Your task to perform on an android device: Add usb-c to usb-b to the cart on bestbuy.com, then select checkout. Image 0: 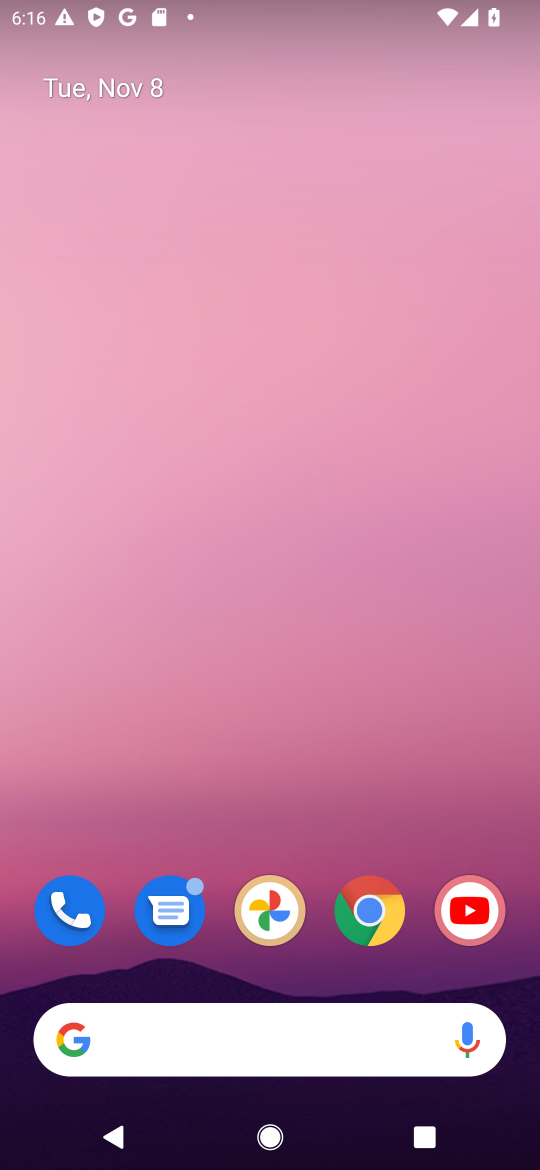
Step 0: click (376, 902)
Your task to perform on an android device: Add usb-c to usb-b to the cart on bestbuy.com, then select checkout. Image 1: 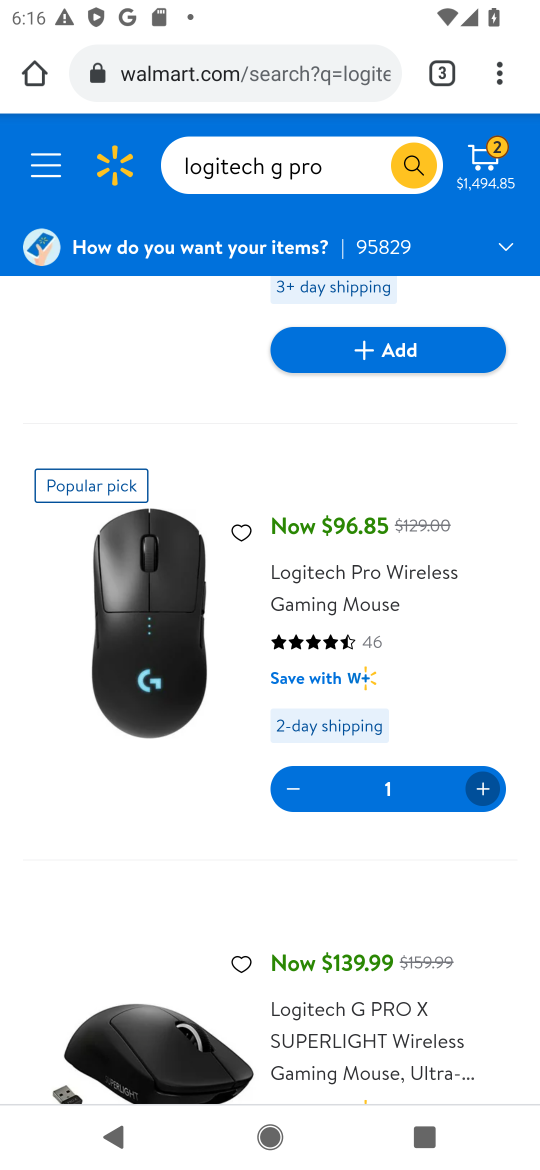
Step 1: click (450, 79)
Your task to perform on an android device: Add usb-c to usb-b to the cart on bestbuy.com, then select checkout. Image 2: 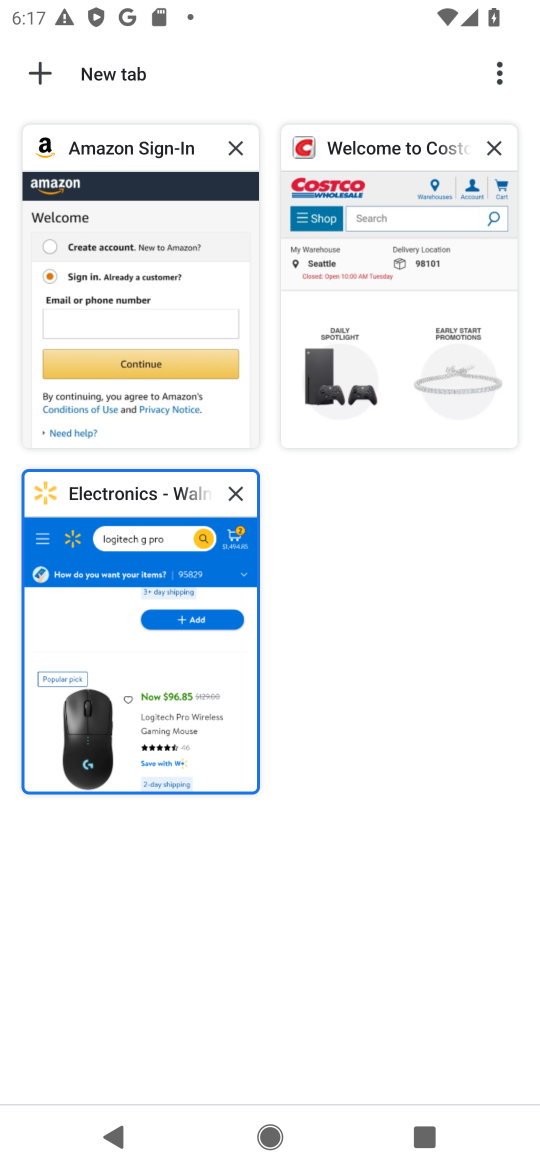
Step 2: click (40, 71)
Your task to perform on an android device: Add usb-c to usb-b to the cart on bestbuy.com, then select checkout. Image 3: 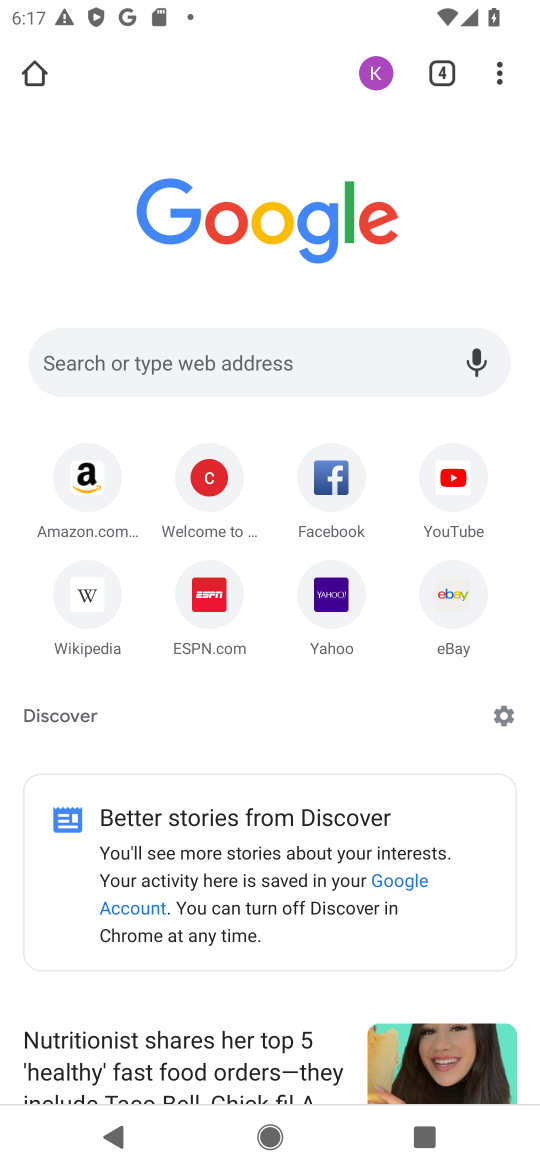
Step 3: click (253, 359)
Your task to perform on an android device: Add usb-c to usb-b to the cart on bestbuy.com, then select checkout. Image 4: 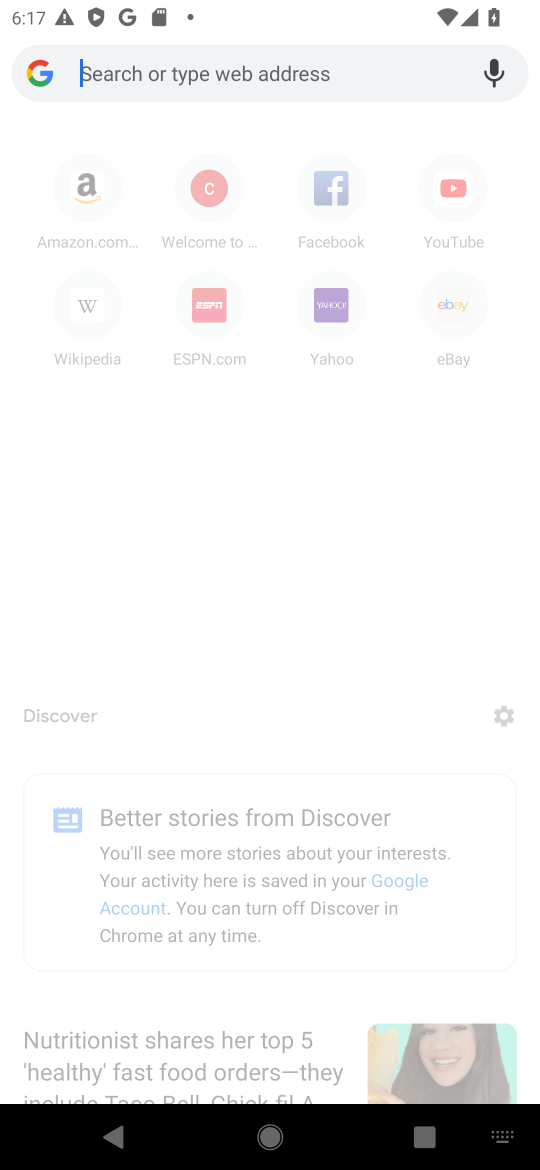
Step 4: type "bestbuy"
Your task to perform on an android device: Add usb-c to usb-b to the cart on bestbuy.com, then select checkout. Image 5: 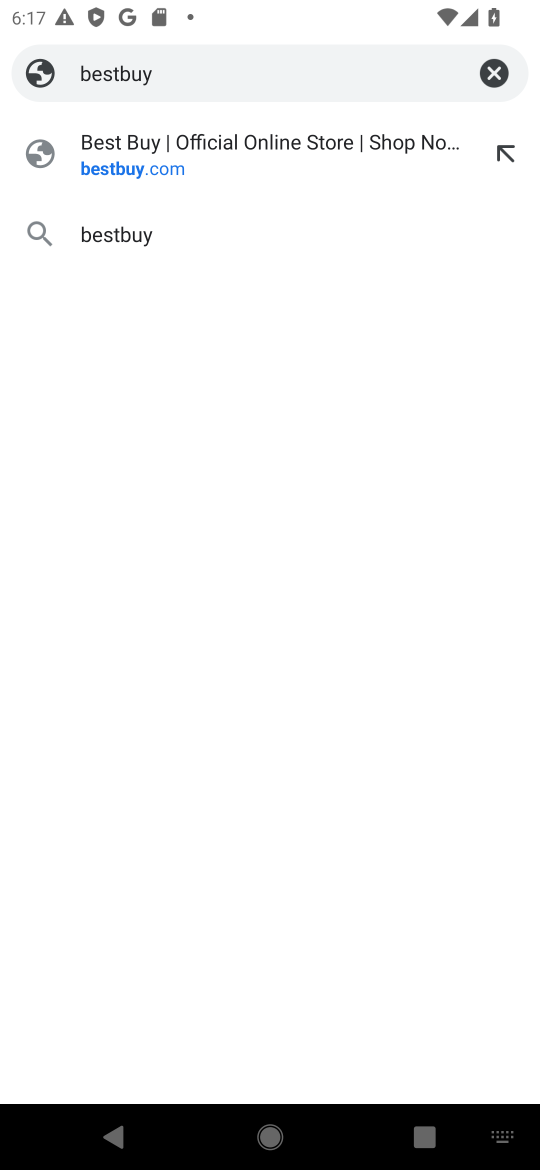
Step 5: click (133, 156)
Your task to perform on an android device: Add usb-c to usb-b to the cart on bestbuy.com, then select checkout. Image 6: 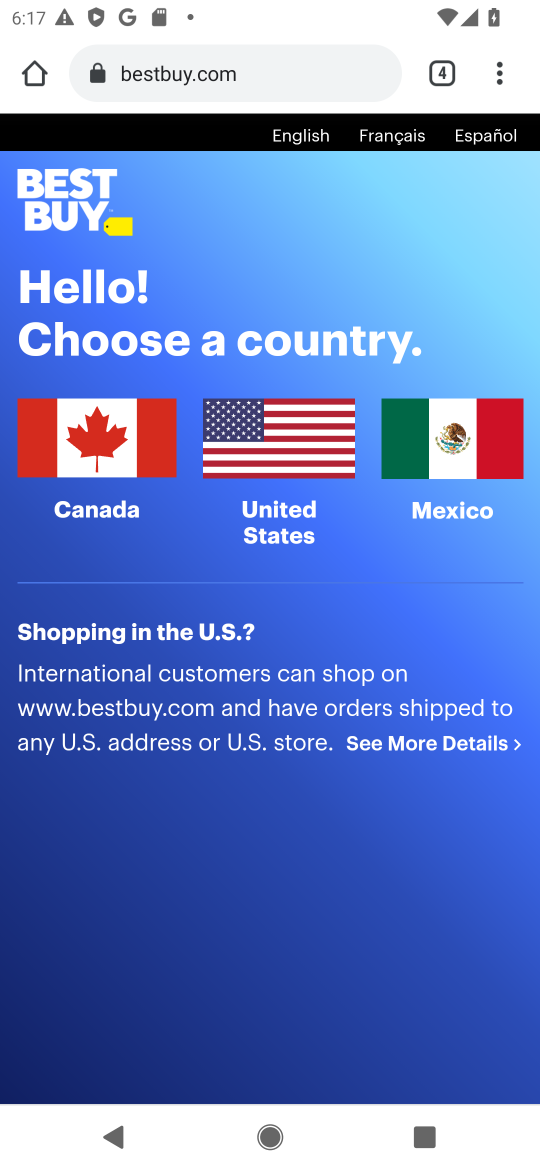
Step 6: click (279, 442)
Your task to perform on an android device: Add usb-c to usb-b to the cart on bestbuy.com, then select checkout. Image 7: 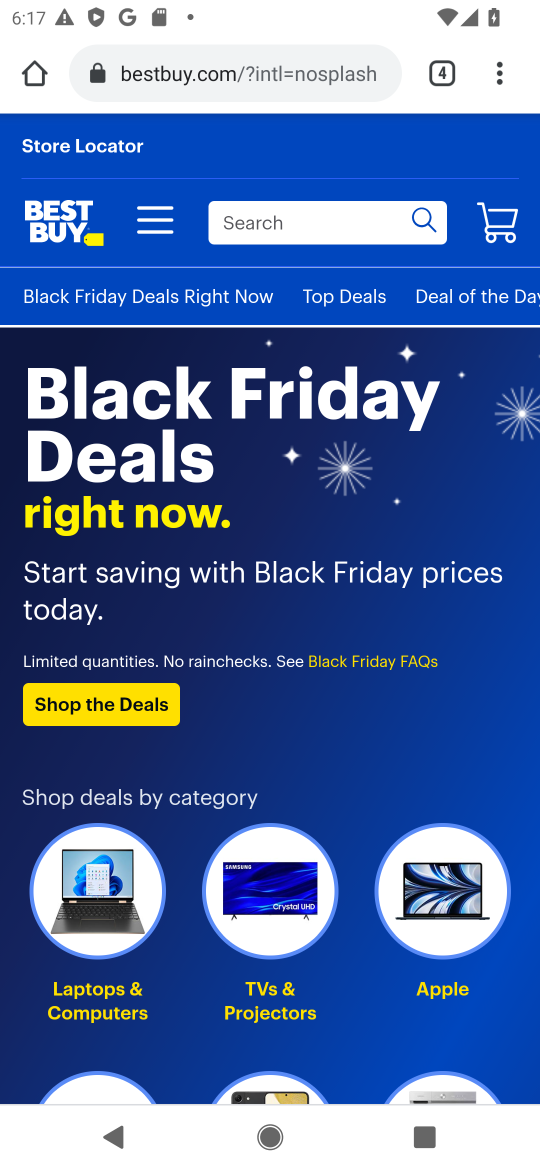
Step 7: click (258, 231)
Your task to perform on an android device: Add usb-c to usb-b to the cart on bestbuy.com, then select checkout. Image 8: 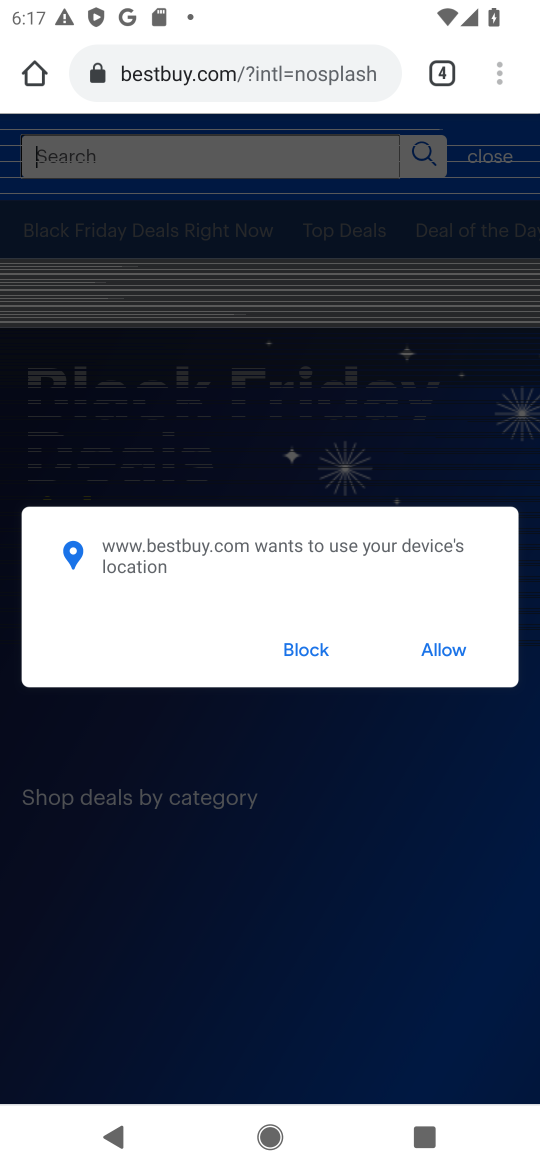
Step 8: type "usb-c to usb-b"
Your task to perform on an android device: Add usb-c to usb-b to the cart on bestbuy.com, then select checkout. Image 9: 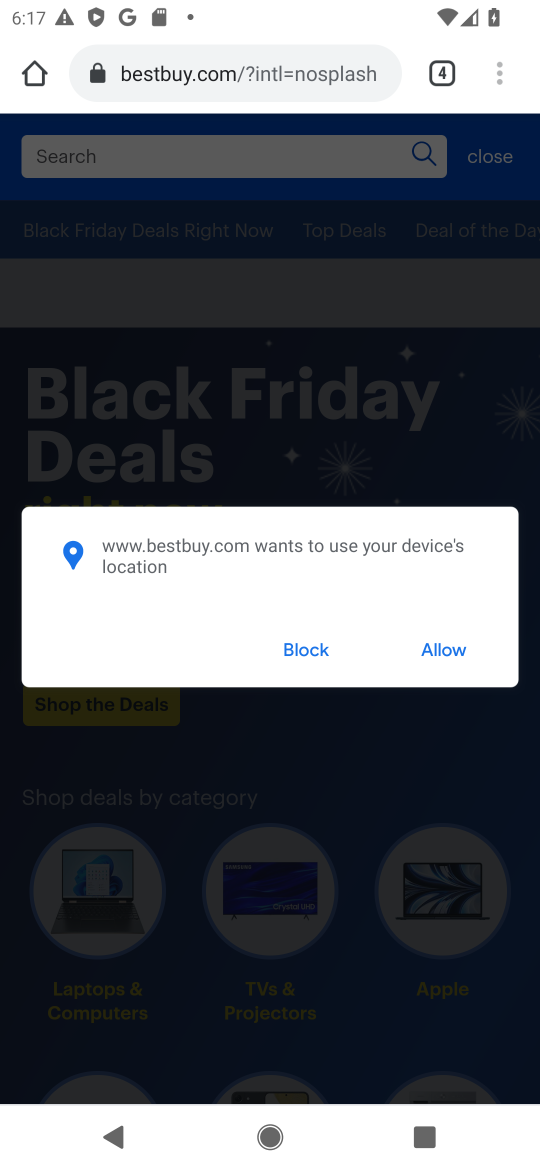
Step 9: click (313, 650)
Your task to perform on an android device: Add usb-c to usb-b to the cart on bestbuy.com, then select checkout. Image 10: 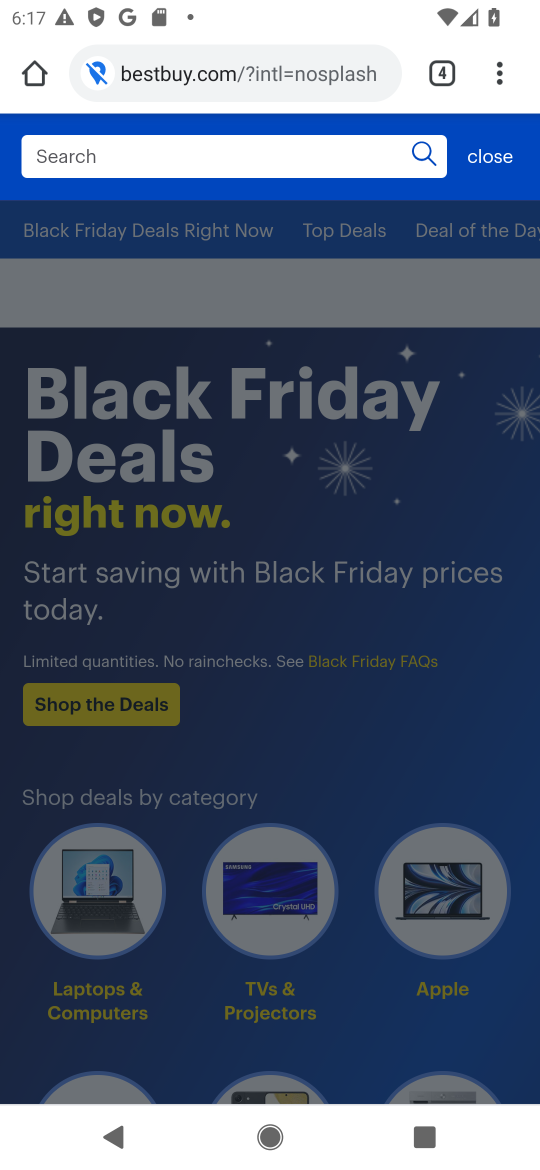
Step 10: click (322, 170)
Your task to perform on an android device: Add usb-c to usb-b to the cart on bestbuy.com, then select checkout. Image 11: 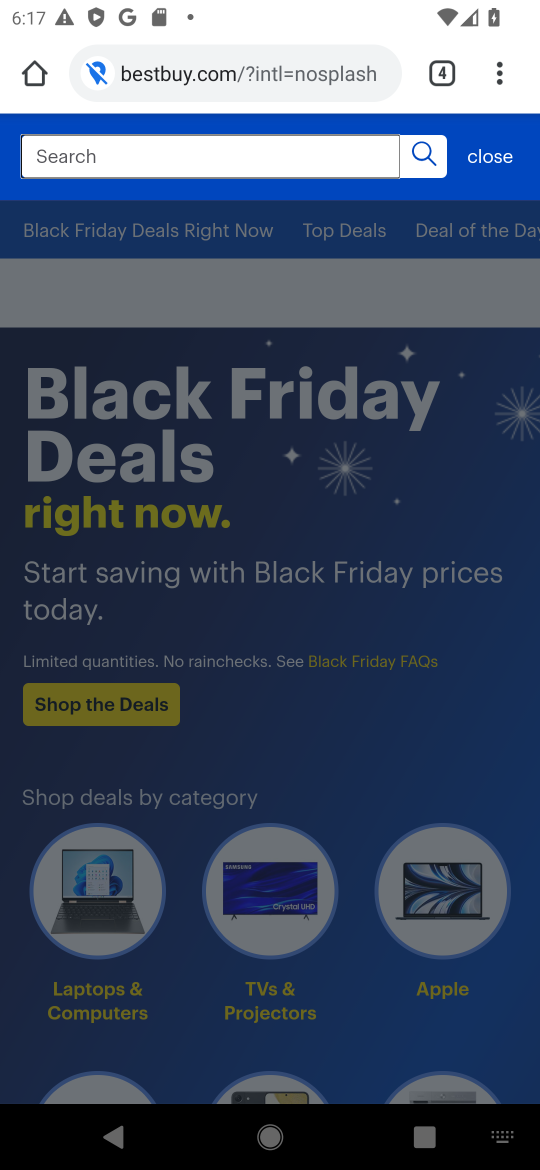
Step 11: type "usb-c to usb-b"
Your task to perform on an android device: Add usb-c to usb-b to the cart on bestbuy.com, then select checkout. Image 12: 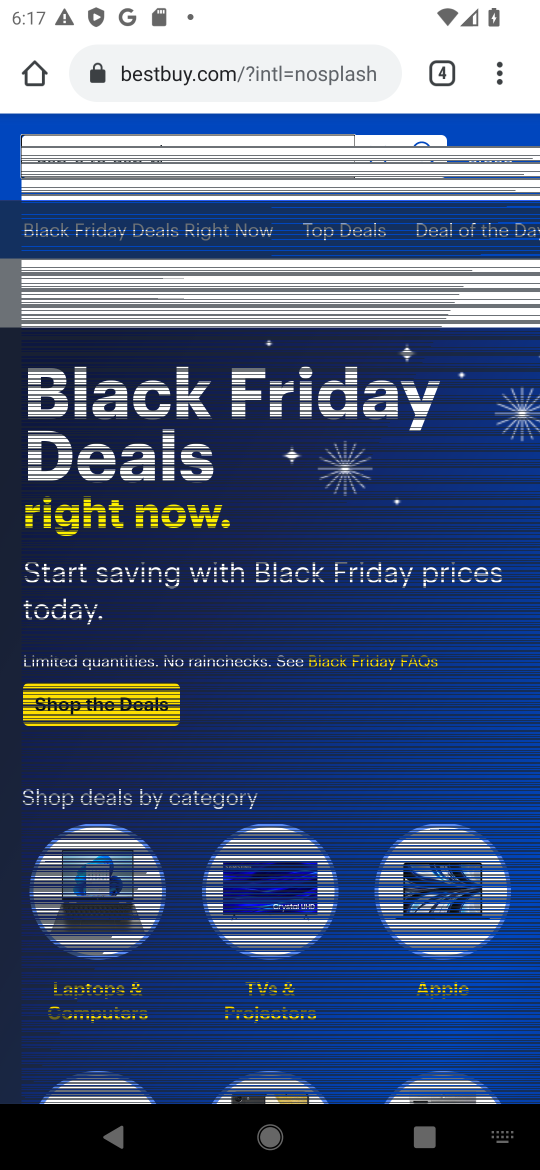
Step 12: click (431, 155)
Your task to perform on an android device: Add usb-c to usb-b to the cart on bestbuy.com, then select checkout. Image 13: 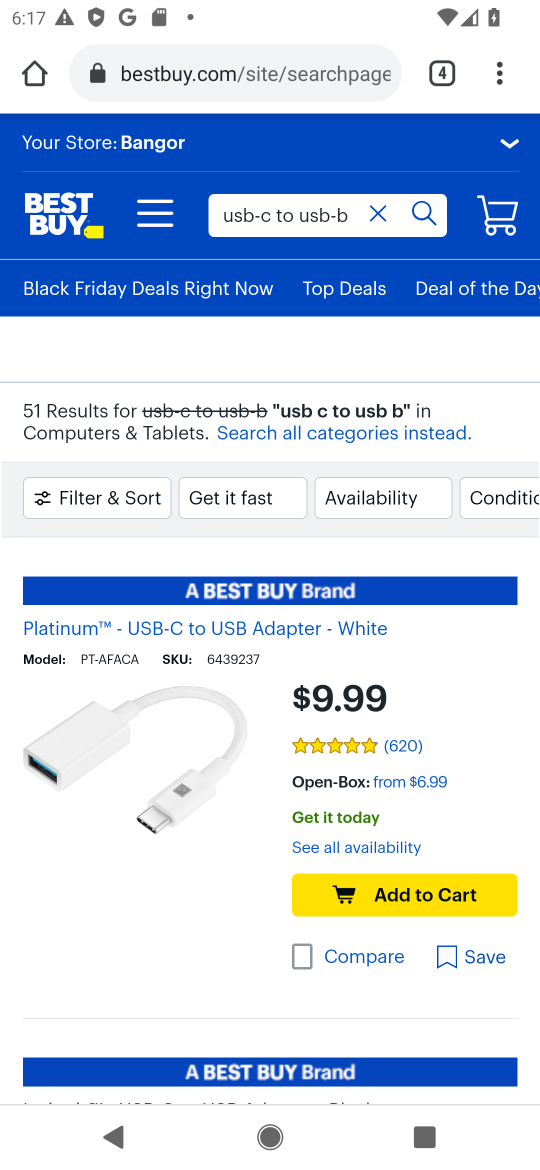
Step 13: click (368, 899)
Your task to perform on an android device: Add usb-c to usb-b to the cart on bestbuy.com, then select checkout. Image 14: 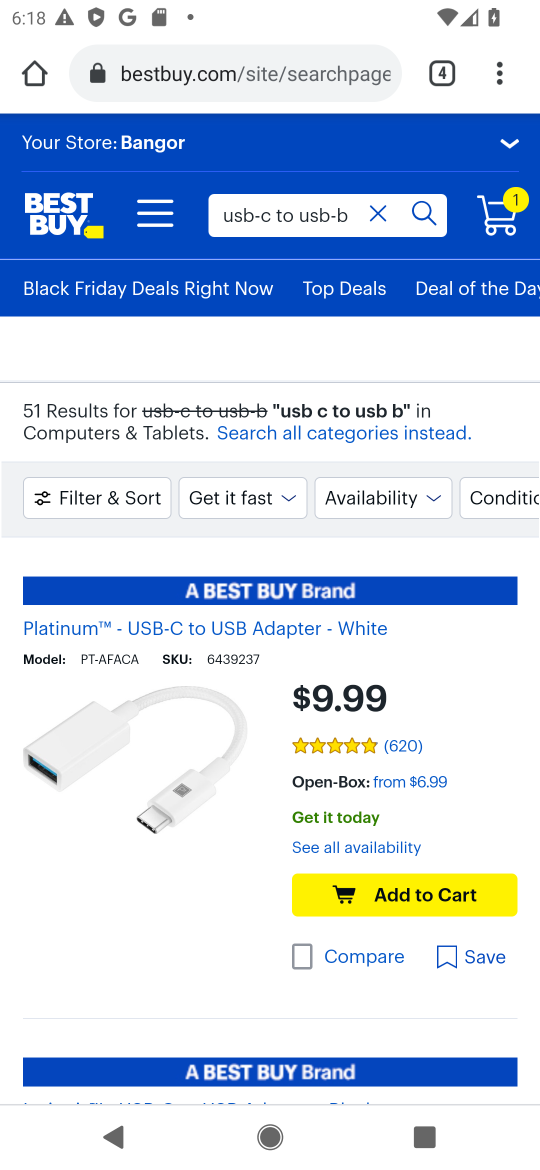
Step 14: click (502, 221)
Your task to perform on an android device: Add usb-c to usb-b to the cart on bestbuy.com, then select checkout. Image 15: 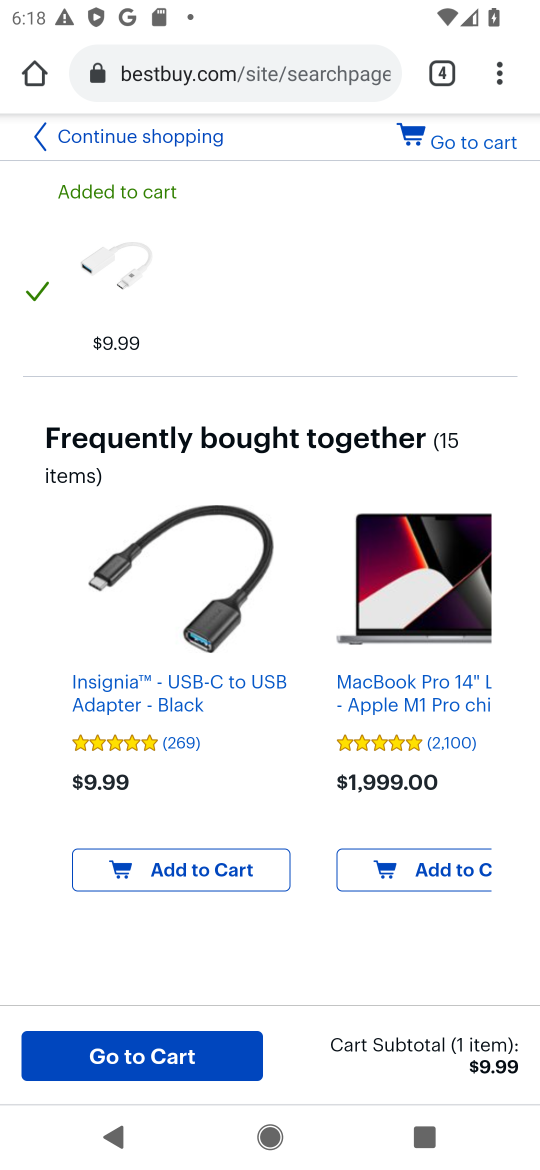
Step 15: click (172, 1065)
Your task to perform on an android device: Add usb-c to usb-b to the cart on bestbuy.com, then select checkout. Image 16: 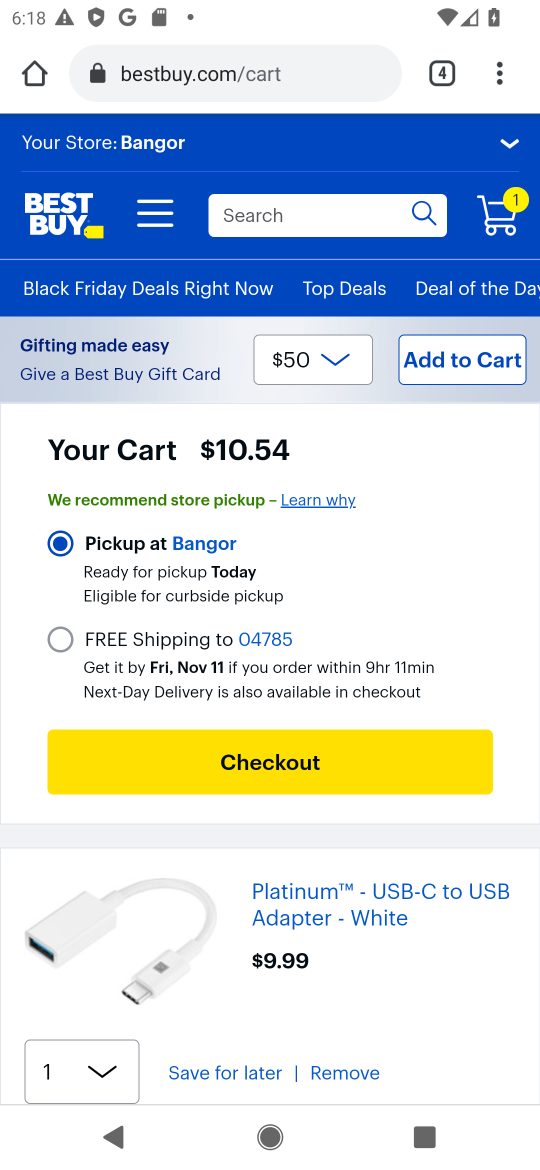
Step 16: click (256, 745)
Your task to perform on an android device: Add usb-c to usb-b to the cart on bestbuy.com, then select checkout. Image 17: 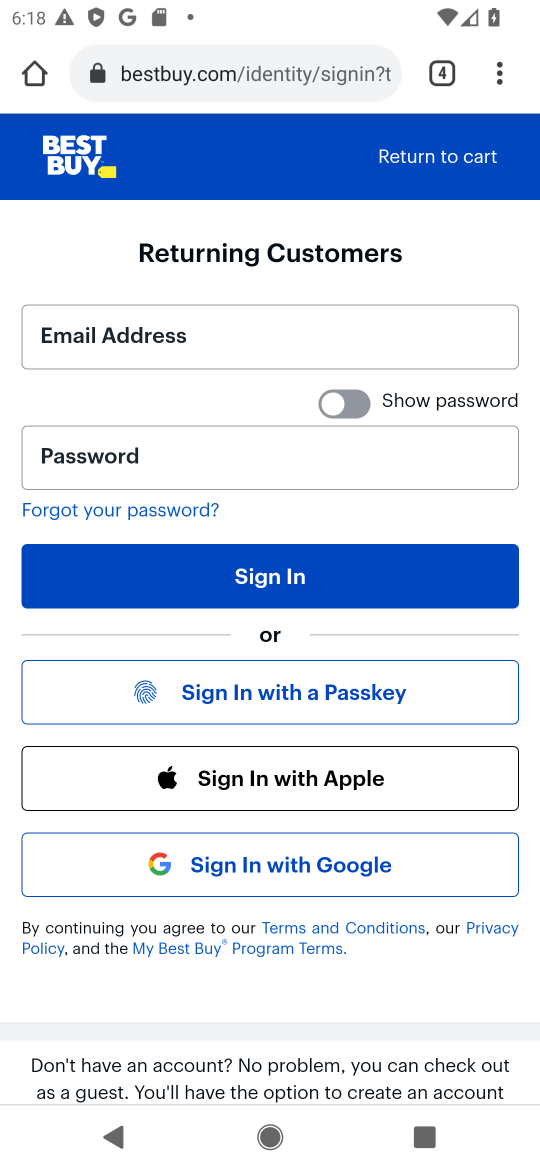
Step 17: task complete